Your task to perform on an android device: Go to Google Image 0: 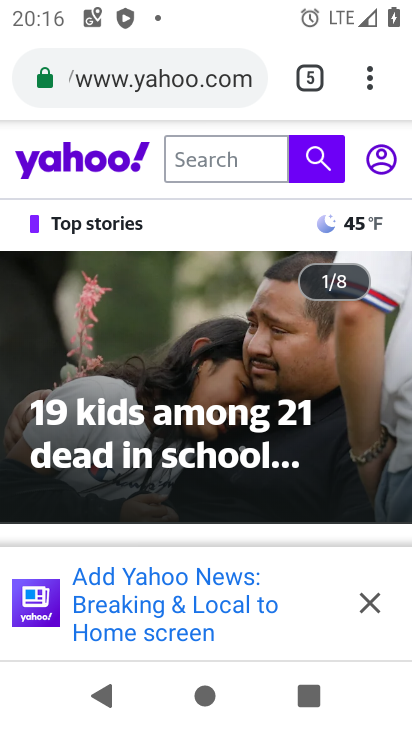
Step 0: press home button
Your task to perform on an android device: Go to Google Image 1: 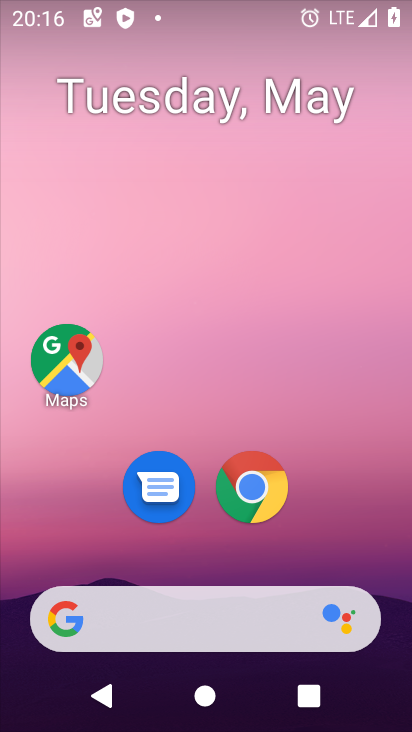
Step 1: click (67, 619)
Your task to perform on an android device: Go to Google Image 2: 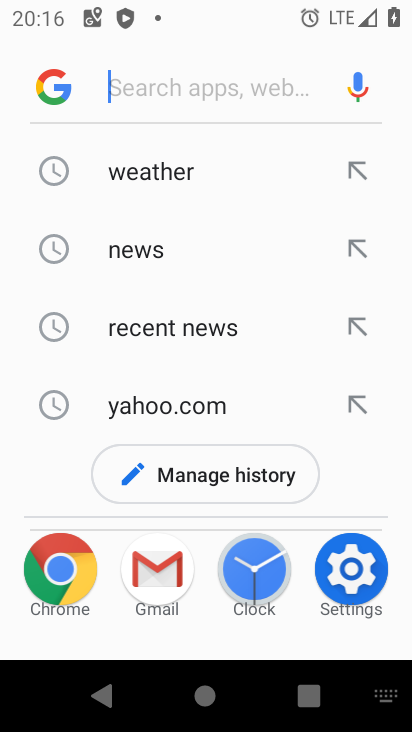
Step 2: click (53, 93)
Your task to perform on an android device: Go to Google Image 3: 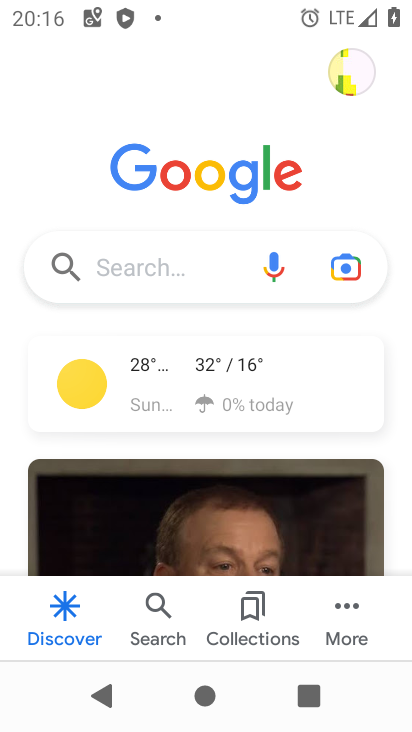
Step 3: task complete